Your task to perform on an android device: clear history in the chrome app Image 0: 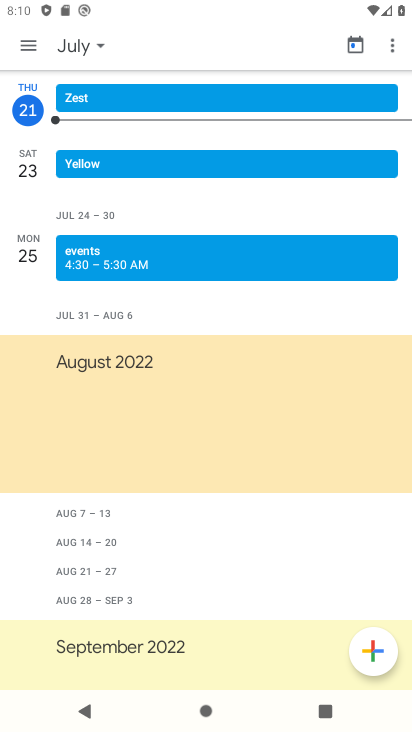
Step 0: press home button
Your task to perform on an android device: clear history in the chrome app Image 1: 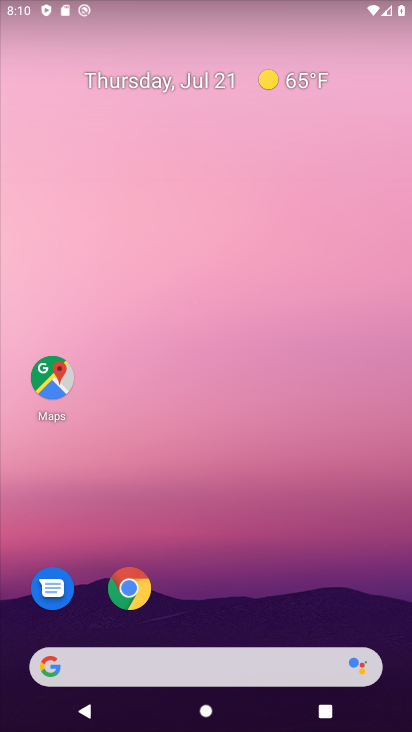
Step 1: click (122, 590)
Your task to perform on an android device: clear history in the chrome app Image 2: 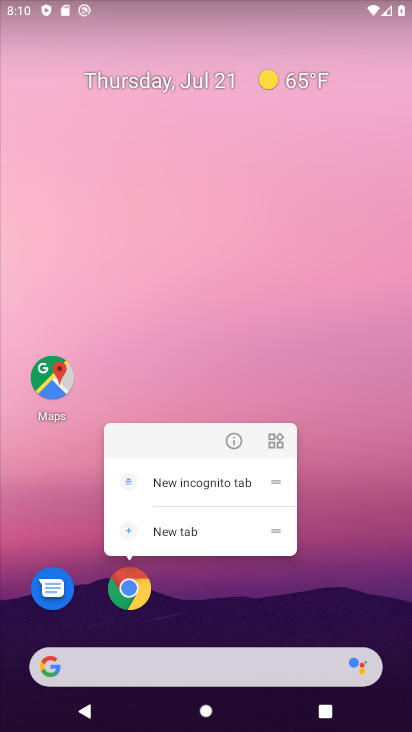
Step 2: click (132, 606)
Your task to perform on an android device: clear history in the chrome app Image 3: 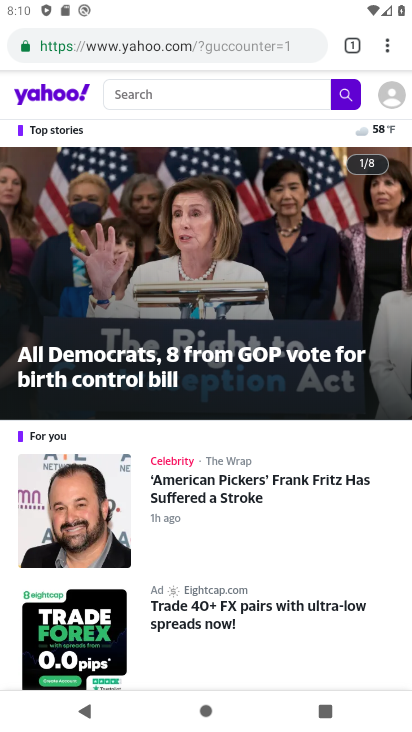
Step 3: click (388, 38)
Your task to perform on an android device: clear history in the chrome app Image 4: 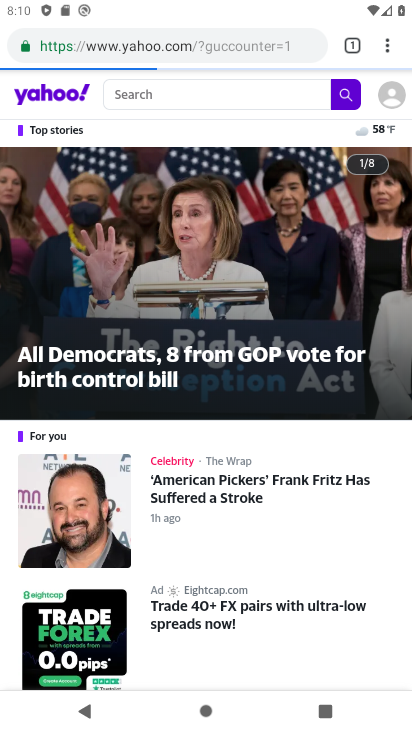
Step 4: drag from (388, 38) to (210, 262)
Your task to perform on an android device: clear history in the chrome app Image 5: 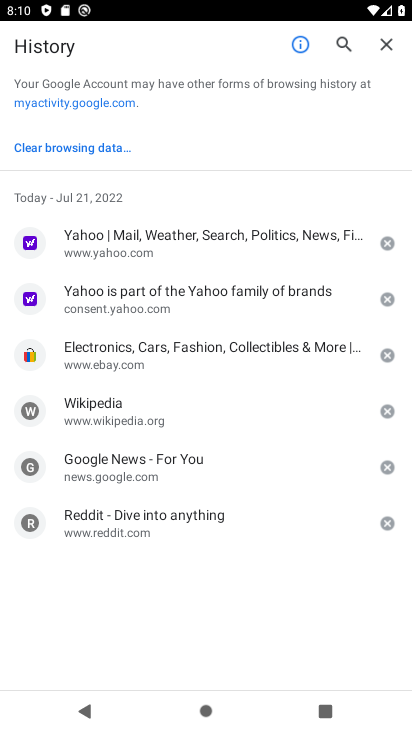
Step 5: click (109, 150)
Your task to perform on an android device: clear history in the chrome app Image 6: 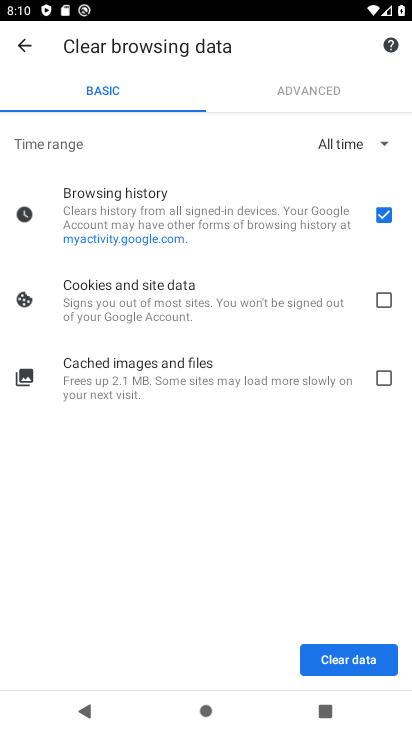
Step 6: click (383, 301)
Your task to perform on an android device: clear history in the chrome app Image 7: 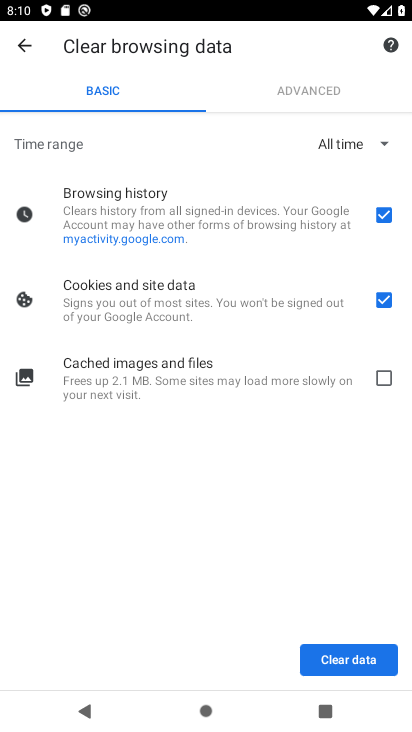
Step 7: click (370, 380)
Your task to perform on an android device: clear history in the chrome app Image 8: 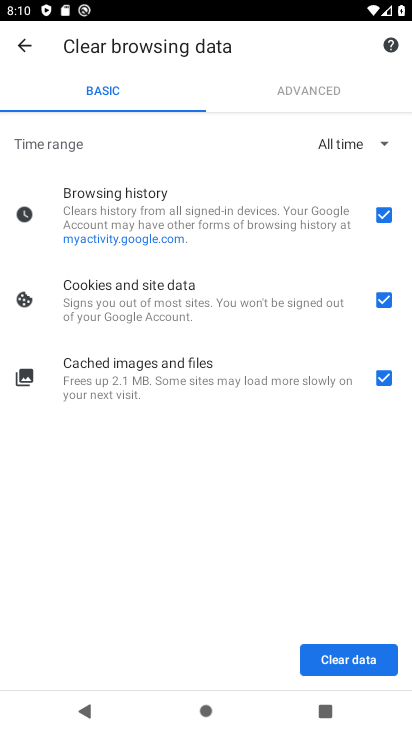
Step 8: click (351, 675)
Your task to perform on an android device: clear history in the chrome app Image 9: 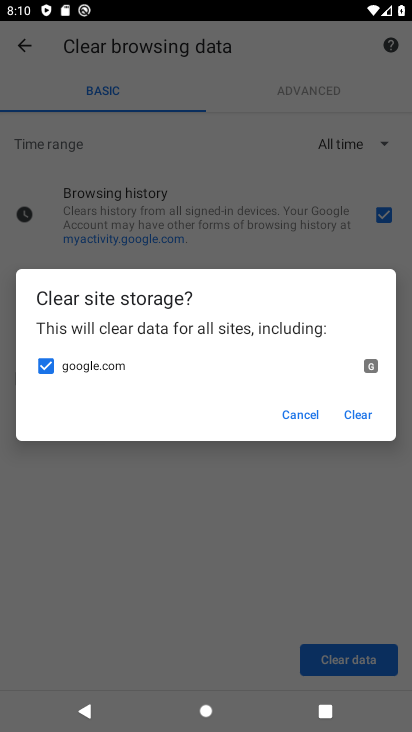
Step 9: click (370, 406)
Your task to perform on an android device: clear history in the chrome app Image 10: 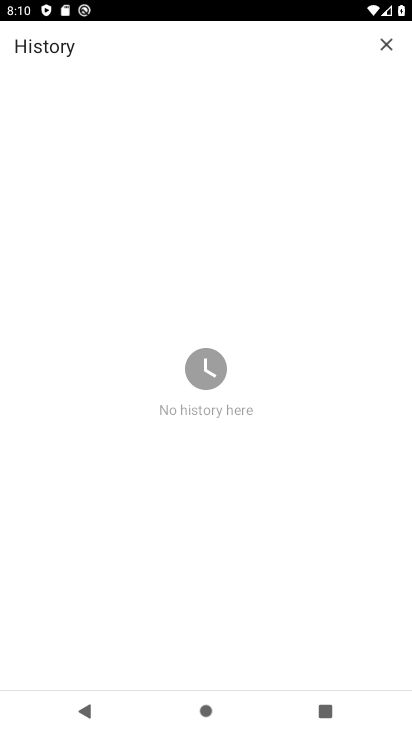
Step 10: task complete